Your task to perform on an android device: Show me recent news Image 0: 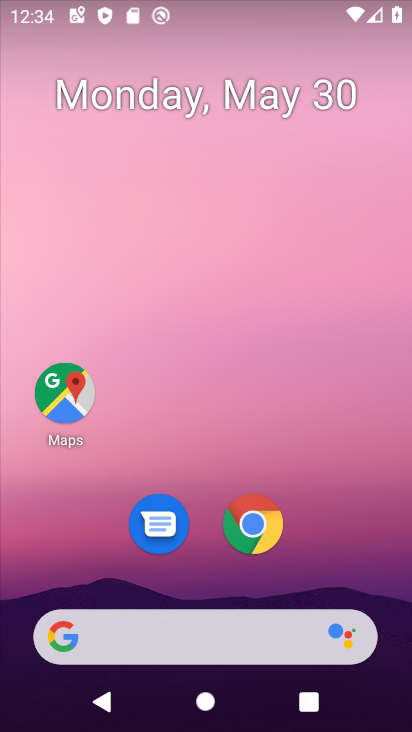
Step 0: click (184, 653)
Your task to perform on an android device: Show me recent news Image 1: 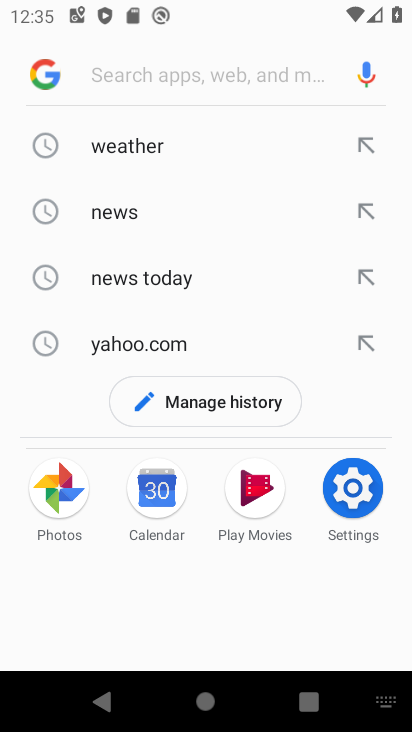
Step 1: click (124, 263)
Your task to perform on an android device: Show me recent news Image 2: 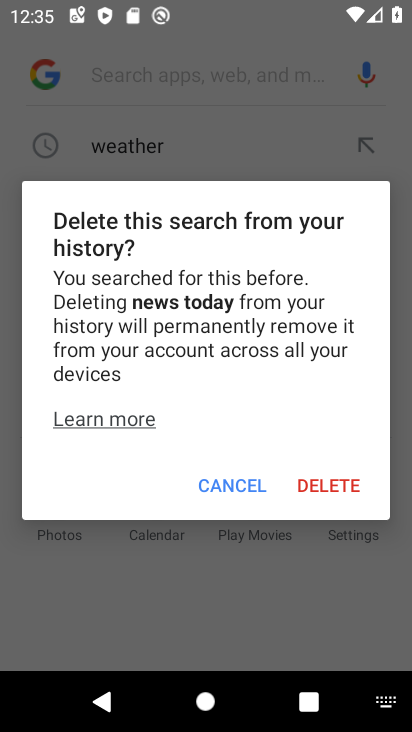
Step 2: click (242, 484)
Your task to perform on an android device: Show me recent news Image 3: 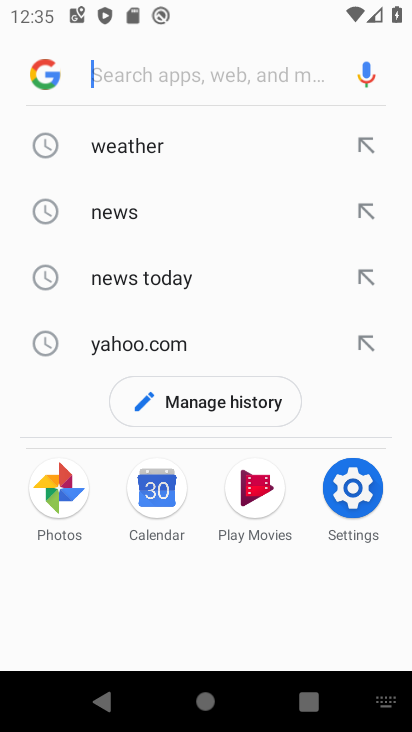
Step 3: click (42, 274)
Your task to perform on an android device: Show me recent news Image 4: 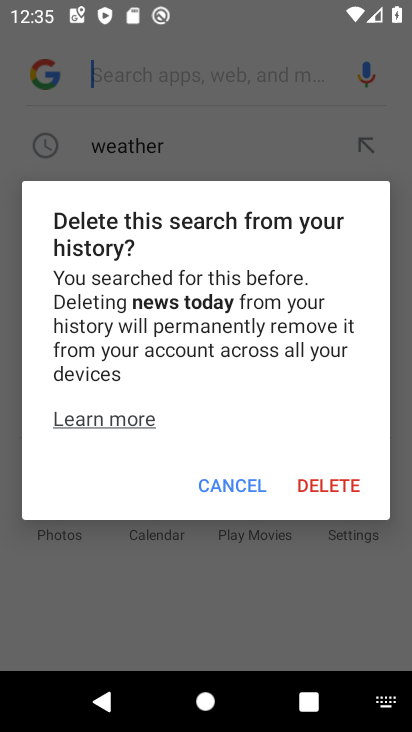
Step 4: click (236, 476)
Your task to perform on an android device: Show me recent news Image 5: 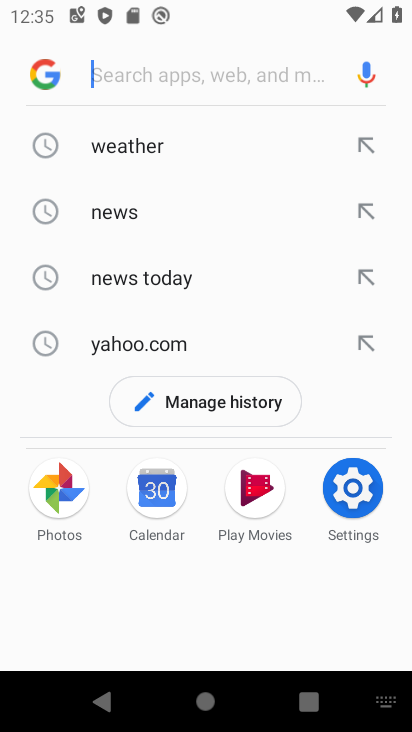
Step 5: click (101, 212)
Your task to perform on an android device: Show me recent news Image 6: 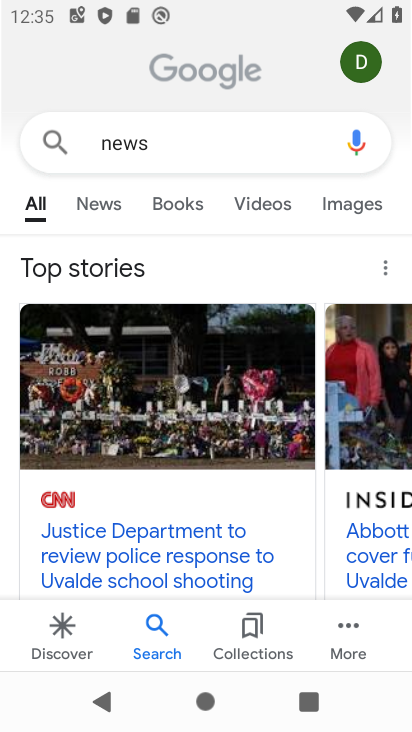
Step 6: task complete